Your task to perform on an android device: turn off smart reply in the gmail app Image 0: 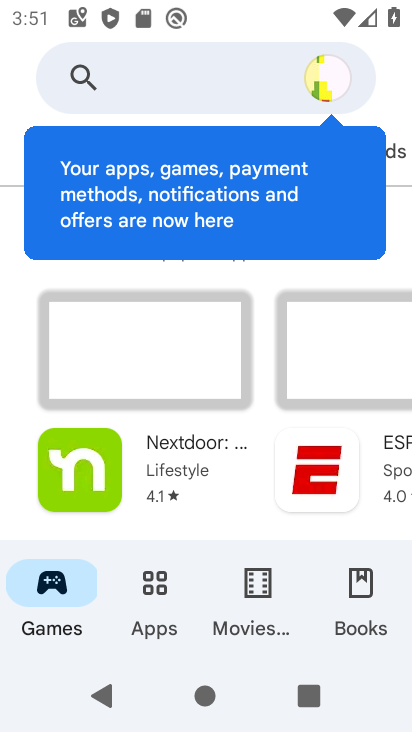
Step 0: drag from (257, 485) to (258, 230)
Your task to perform on an android device: turn off smart reply in the gmail app Image 1: 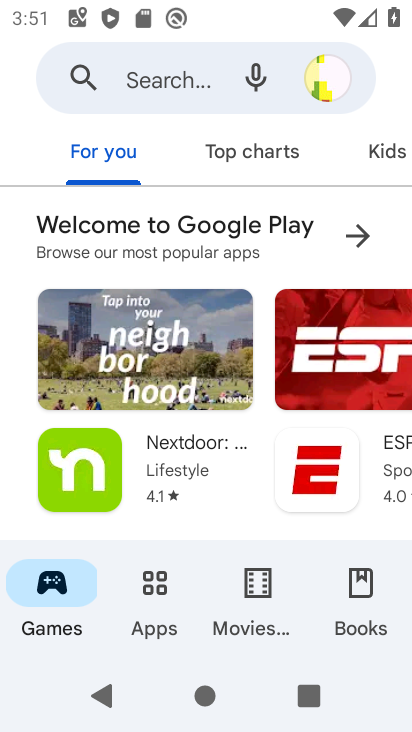
Step 1: drag from (209, 343) to (307, 641)
Your task to perform on an android device: turn off smart reply in the gmail app Image 2: 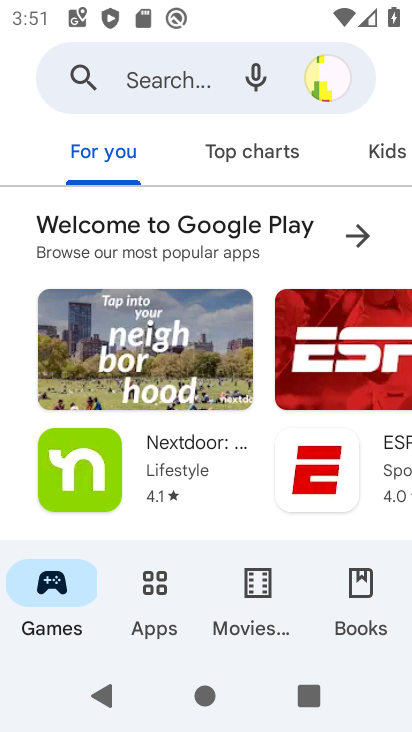
Step 2: press home button
Your task to perform on an android device: turn off smart reply in the gmail app Image 3: 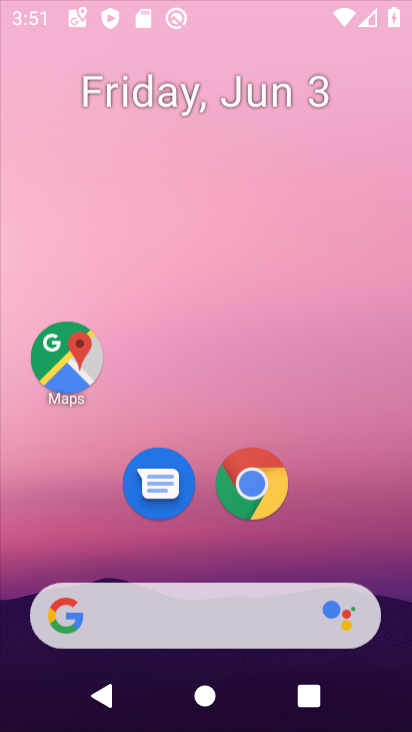
Step 3: drag from (196, 570) to (289, 94)
Your task to perform on an android device: turn off smart reply in the gmail app Image 4: 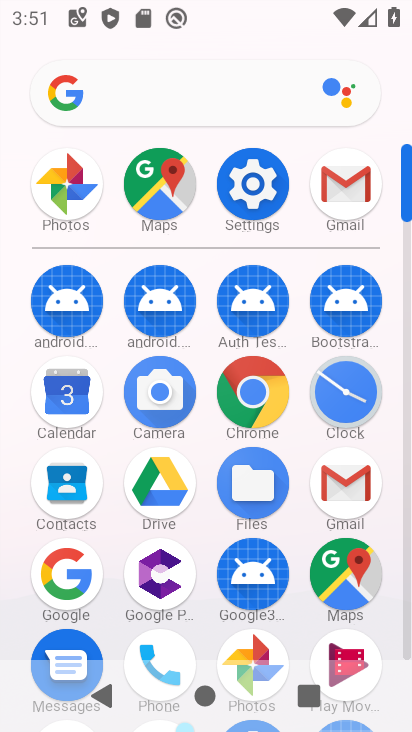
Step 4: click (338, 469)
Your task to perform on an android device: turn off smart reply in the gmail app Image 5: 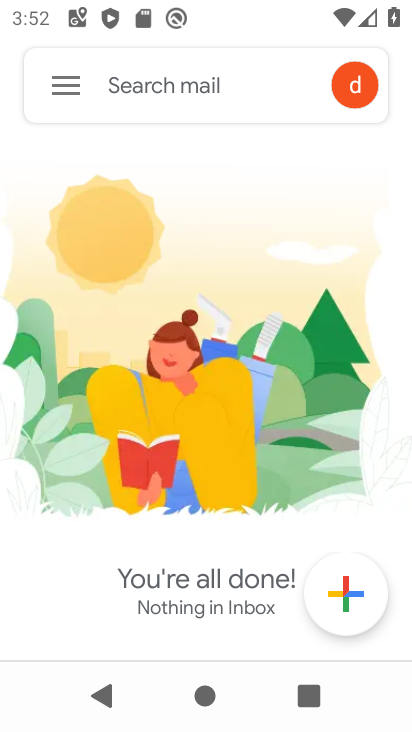
Step 5: click (362, 92)
Your task to perform on an android device: turn off smart reply in the gmail app Image 6: 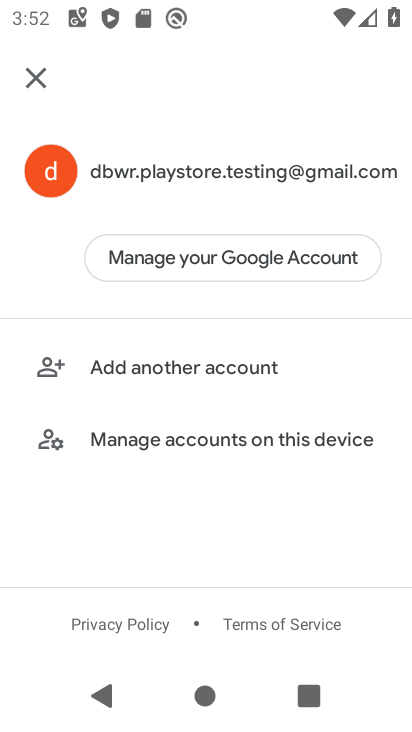
Step 6: click (33, 79)
Your task to perform on an android device: turn off smart reply in the gmail app Image 7: 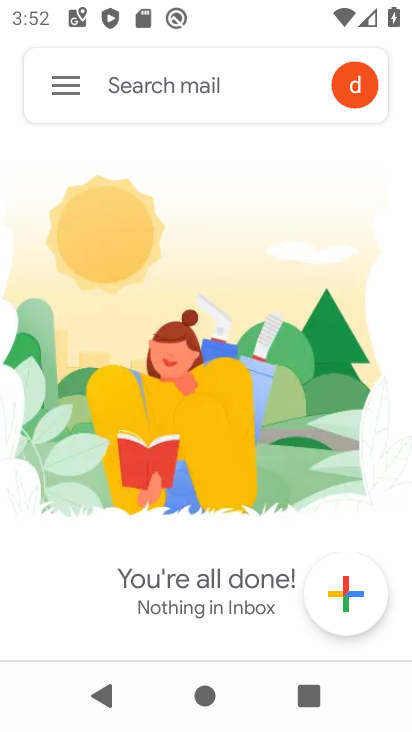
Step 7: click (153, 84)
Your task to perform on an android device: turn off smart reply in the gmail app Image 8: 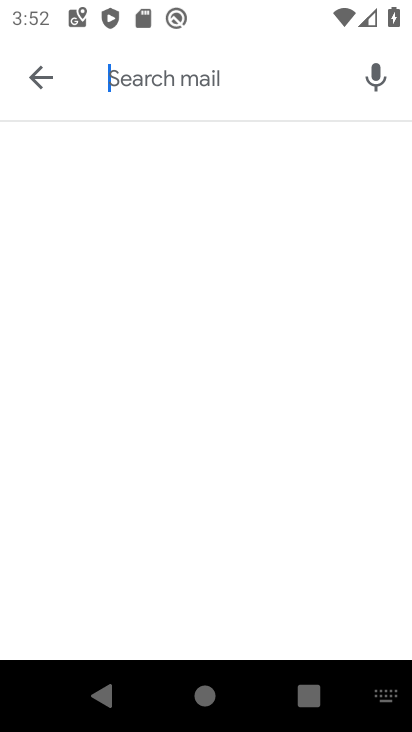
Step 8: click (44, 75)
Your task to perform on an android device: turn off smart reply in the gmail app Image 9: 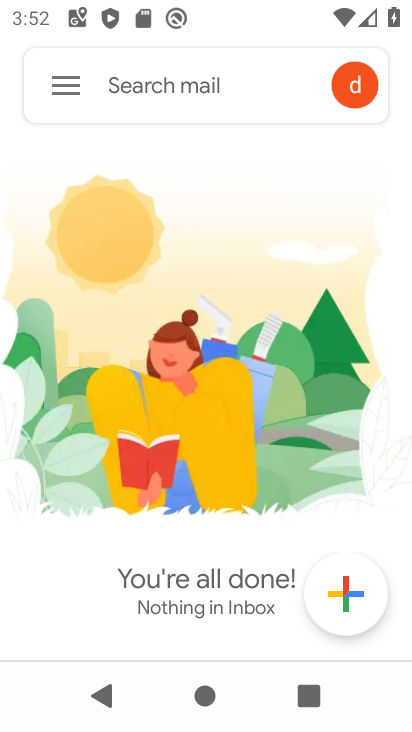
Step 9: click (52, 91)
Your task to perform on an android device: turn off smart reply in the gmail app Image 10: 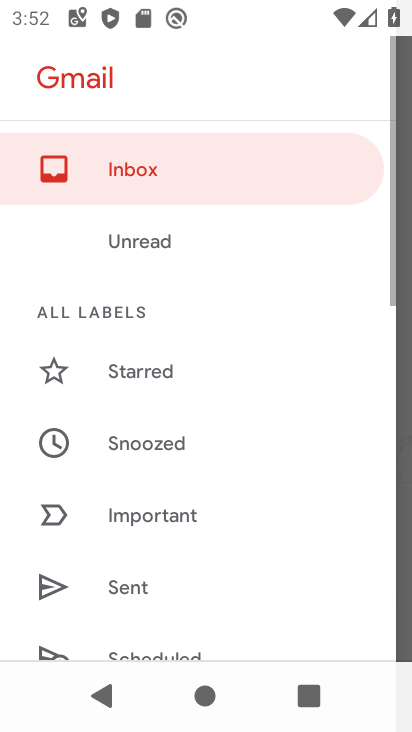
Step 10: drag from (199, 498) to (305, 3)
Your task to perform on an android device: turn off smart reply in the gmail app Image 11: 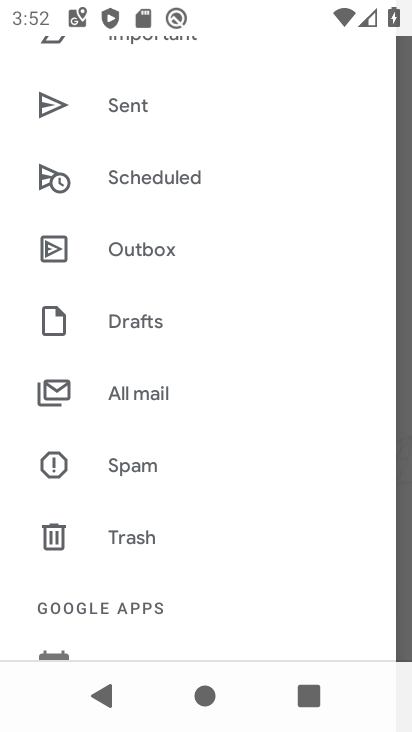
Step 11: drag from (242, 373) to (276, 144)
Your task to perform on an android device: turn off smart reply in the gmail app Image 12: 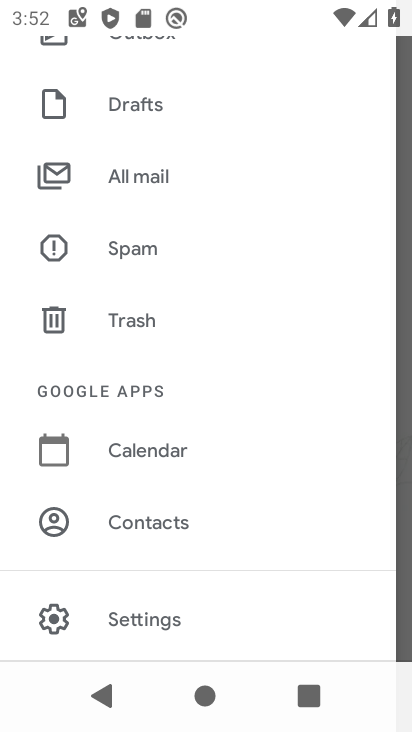
Step 12: click (142, 598)
Your task to perform on an android device: turn off smart reply in the gmail app Image 13: 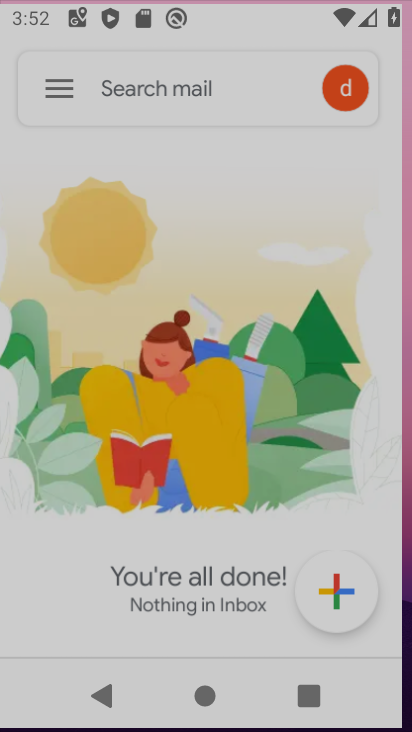
Step 13: drag from (150, 568) to (228, 91)
Your task to perform on an android device: turn off smart reply in the gmail app Image 14: 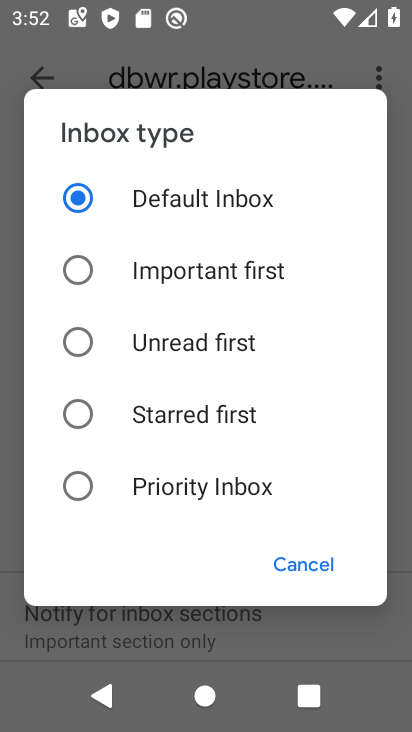
Step 14: drag from (166, 415) to (293, 43)
Your task to perform on an android device: turn off smart reply in the gmail app Image 15: 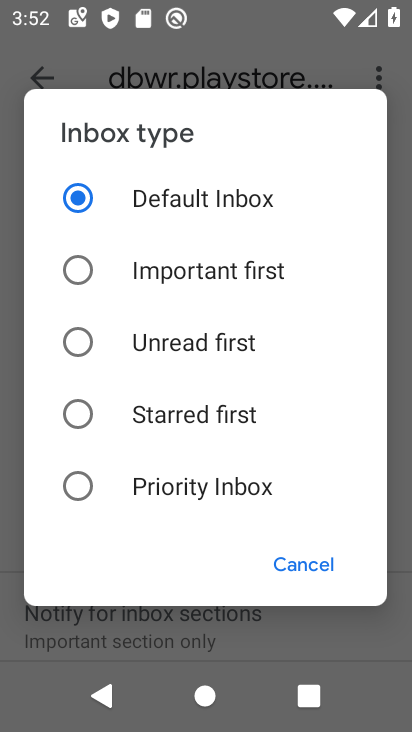
Step 15: click (309, 573)
Your task to perform on an android device: turn off smart reply in the gmail app Image 16: 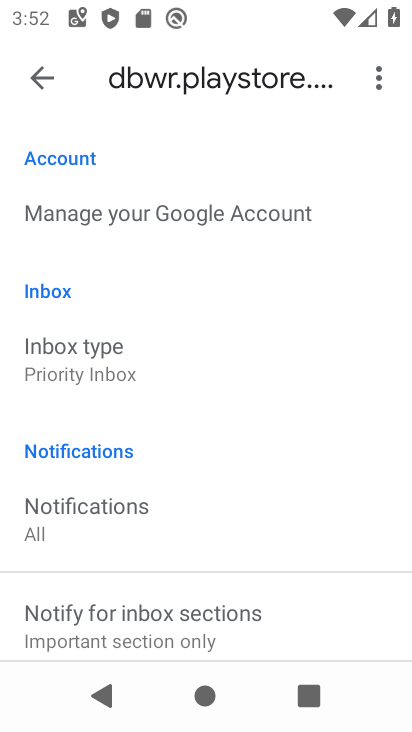
Step 16: drag from (251, 594) to (385, 82)
Your task to perform on an android device: turn off smart reply in the gmail app Image 17: 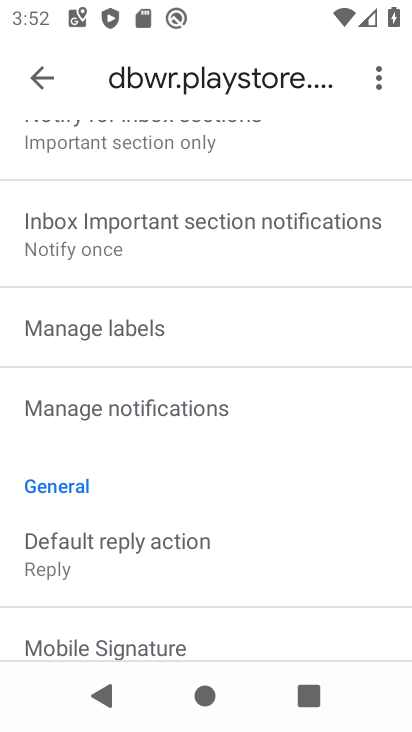
Step 17: drag from (184, 489) to (288, 92)
Your task to perform on an android device: turn off smart reply in the gmail app Image 18: 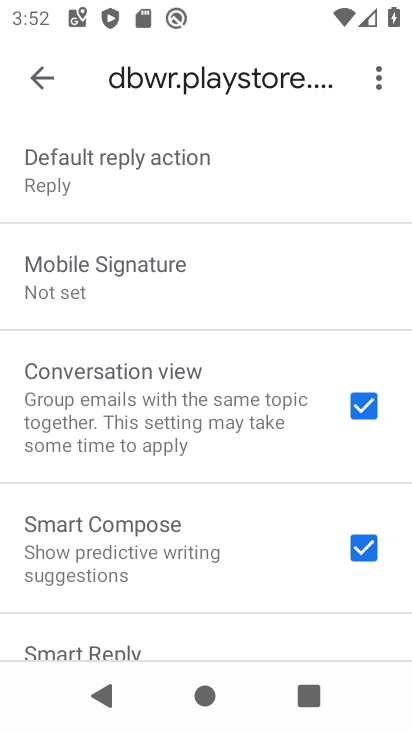
Step 18: drag from (226, 543) to (314, 145)
Your task to perform on an android device: turn off smart reply in the gmail app Image 19: 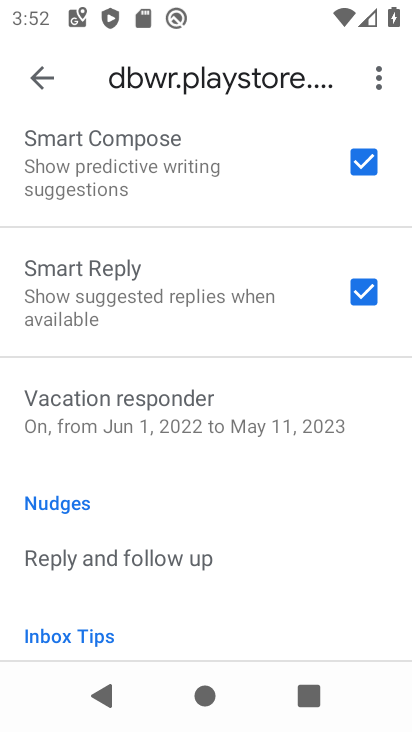
Step 19: click (187, 409)
Your task to perform on an android device: turn off smart reply in the gmail app Image 20: 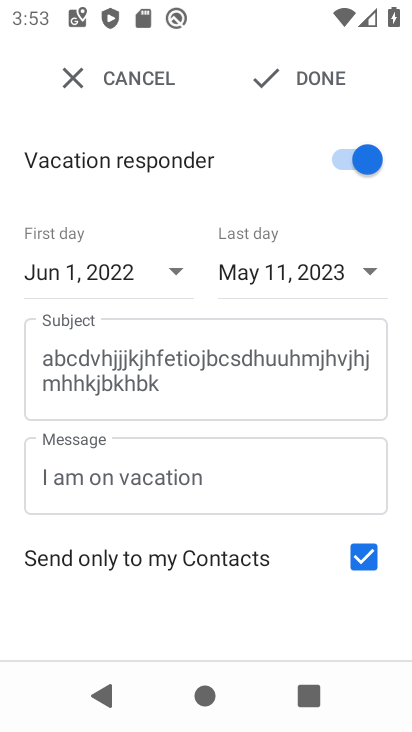
Step 20: click (77, 84)
Your task to perform on an android device: turn off smart reply in the gmail app Image 21: 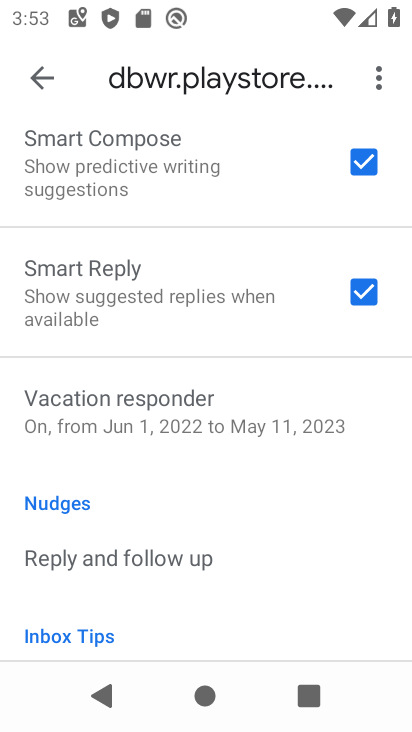
Step 21: click (362, 294)
Your task to perform on an android device: turn off smart reply in the gmail app Image 22: 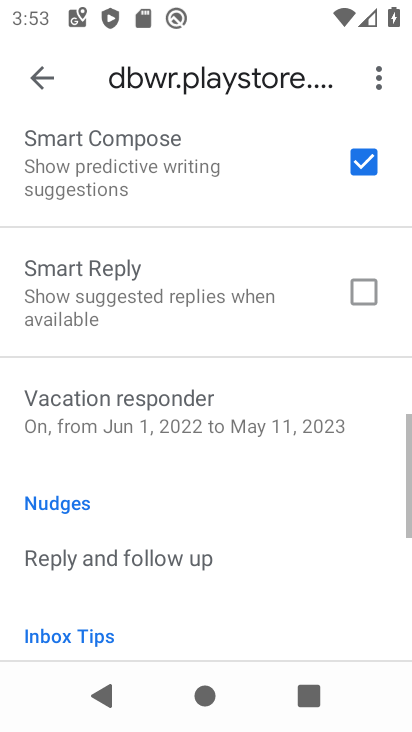
Step 22: task complete